Your task to perform on an android device: create a new album in the google photos Image 0: 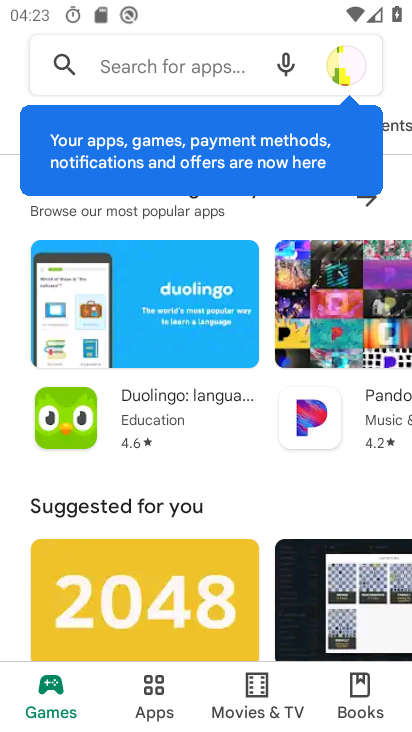
Step 0: press home button
Your task to perform on an android device: create a new album in the google photos Image 1: 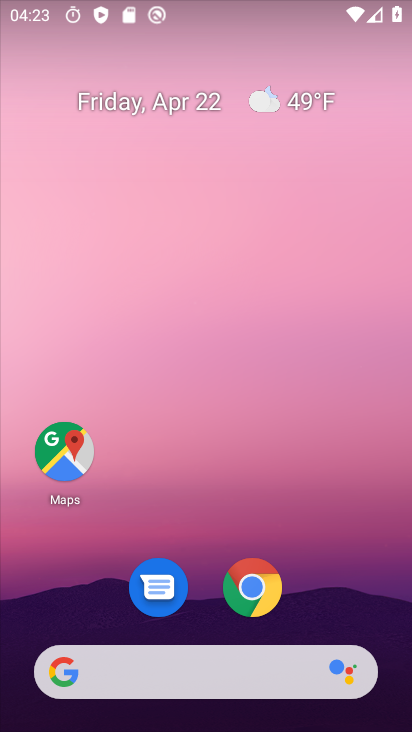
Step 1: drag from (370, 602) to (405, 88)
Your task to perform on an android device: create a new album in the google photos Image 2: 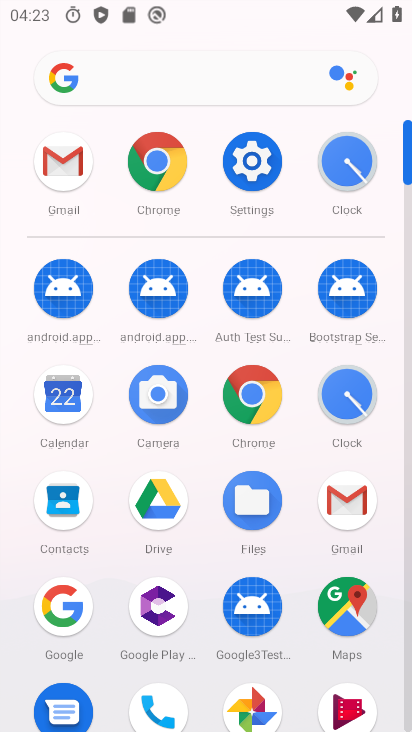
Step 2: click (253, 702)
Your task to perform on an android device: create a new album in the google photos Image 3: 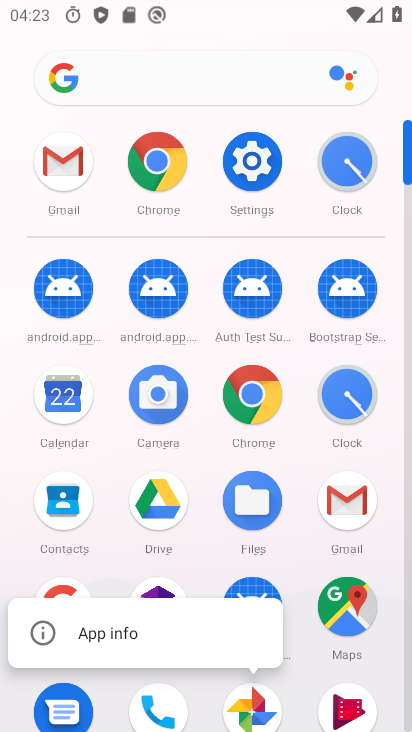
Step 3: click (253, 702)
Your task to perform on an android device: create a new album in the google photos Image 4: 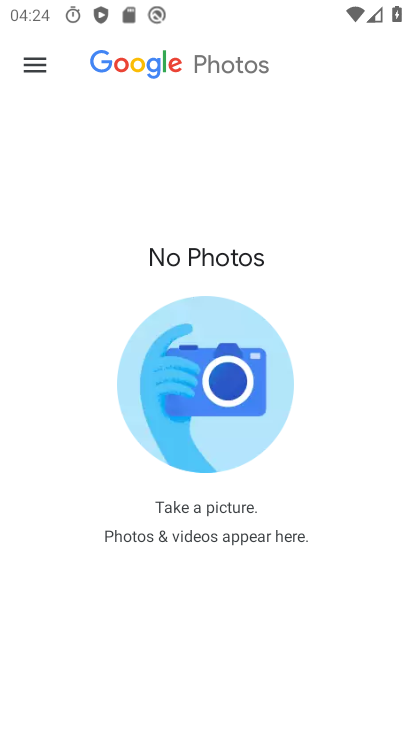
Step 4: task complete